Your task to perform on an android device: What's the weather? Image 0: 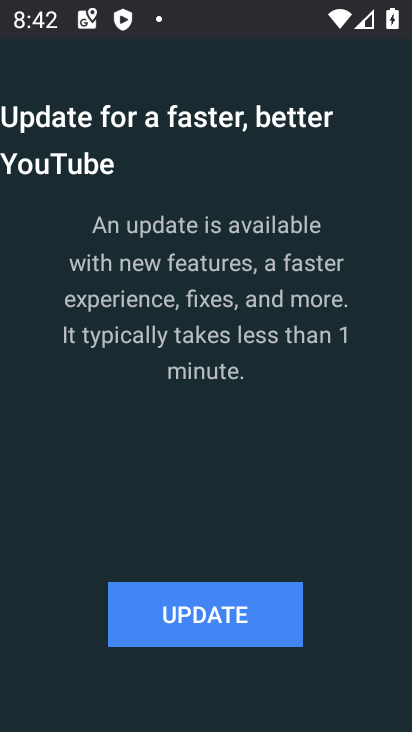
Step 0: press back button
Your task to perform on an android device: What's the weather? Image 1: 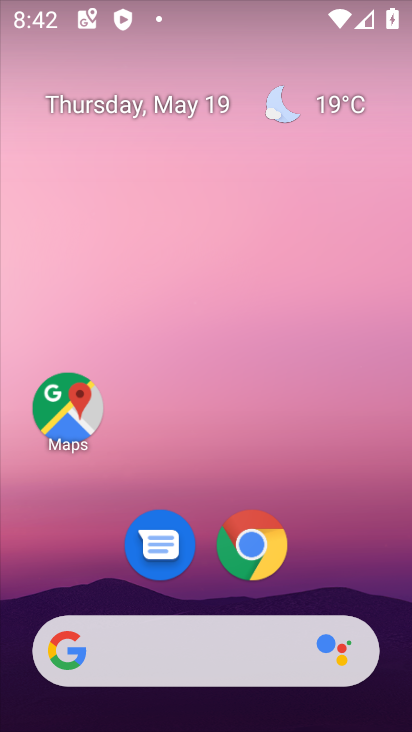
Step 1: click (356, 579)
Your task to perform on an android device: What's the weather? Image 2: 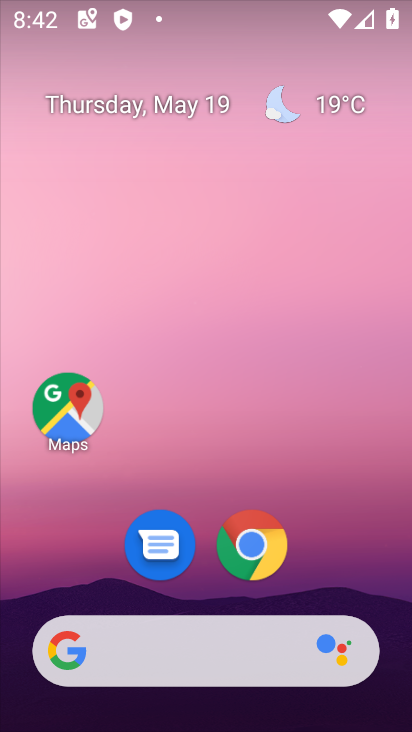
Step 2: click (215, 659)
Your task to perform on an android device: What's the weather? Image 3: 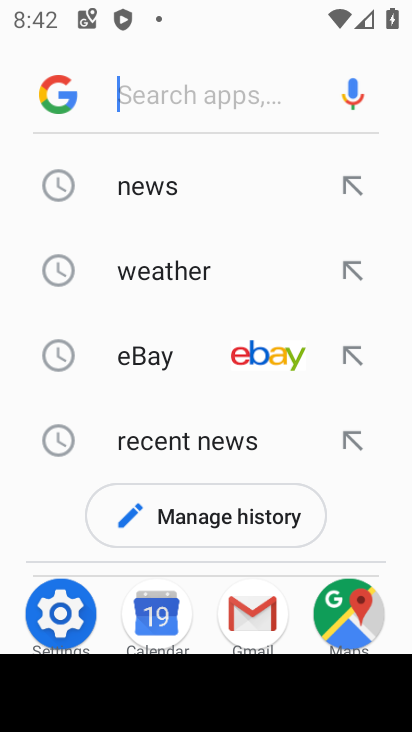
Step 3: click (171, 265)
Your task to perform on an android device: What's the weather? Image 4: 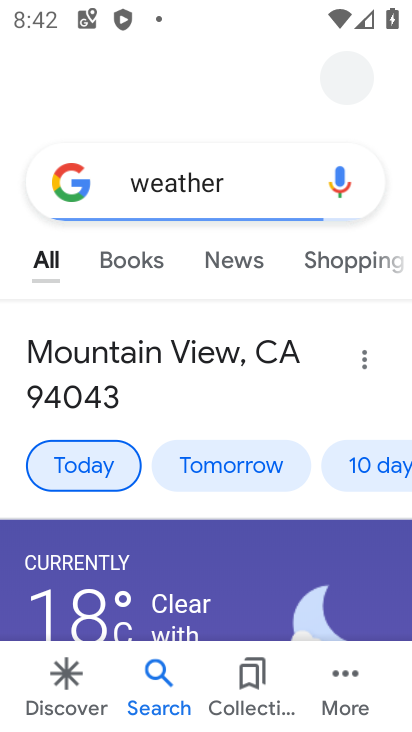
Step 4: task complete